Your task to perform on an android device: turn vacation reply on in the gmail app Image 0: 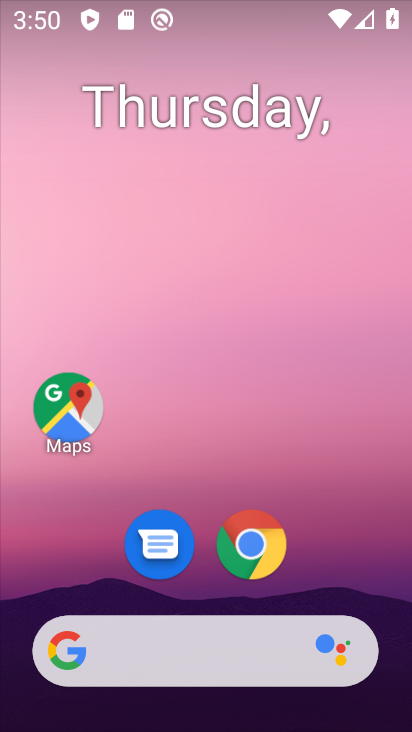
Step 0: drag from (330, 369) to (277, 140)
Your task to perform on an android device: turn vacation reply on in the gmail app Image 1: 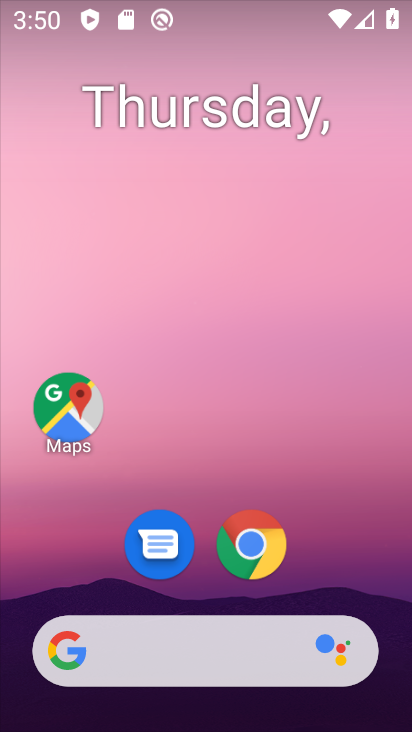
Step 1: drag from (343, 542) to (350, 138)
Your task to perform on an android device: turn vacation reply on in the gmail app Image 2: 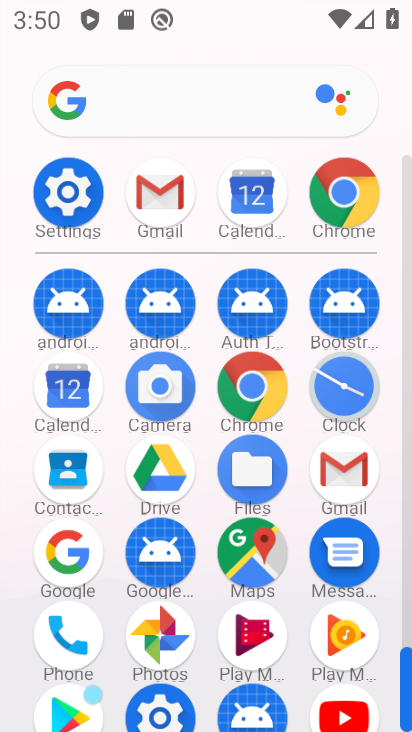
Step 2: click (154, 193)
Your task to perform on an android device: turn vacation reply on in the gmail app Image 3: 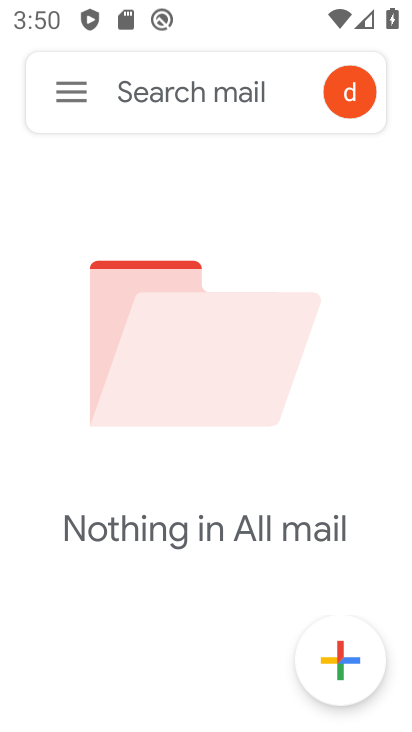
Step 3: click (65, 79)
Your task to perform on an android device: turn vacation reply on in the gmail app Image 4: 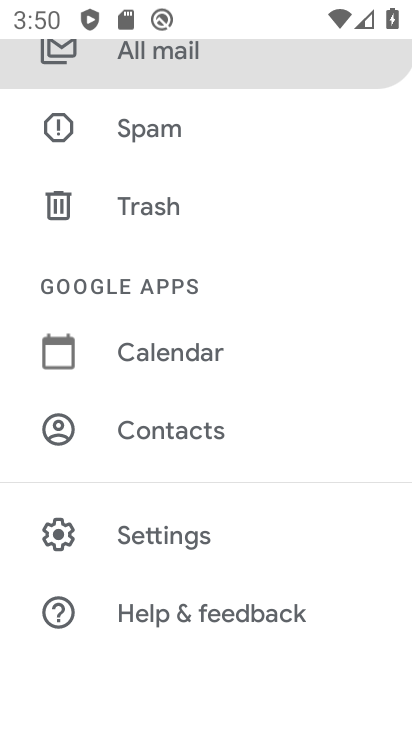
Step 4: drag from (296, 529) to (273, 133)
Your task to perform on an android device: turn vacation reply on in the gmail app Image 5: 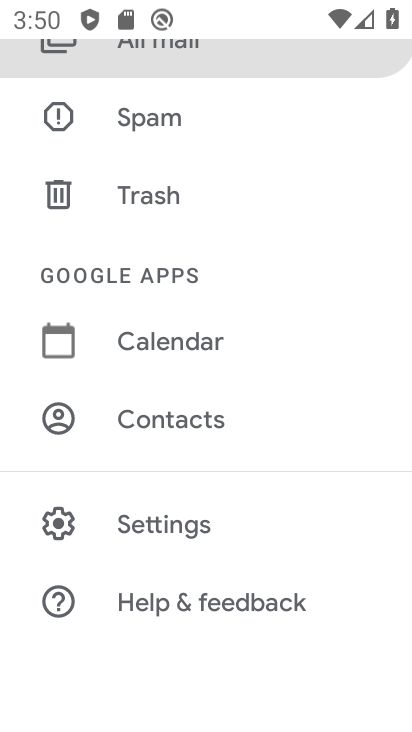
Step 5: click (306, 499)
Your task to perform on an android device: turn vacation reply on in the gmail app Image 6: 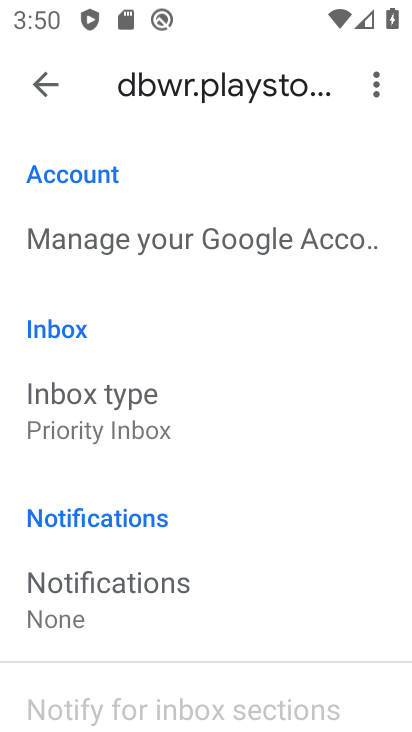
Step 6: drag from (286, 526) to (303, 48)
Your task to perform on an android device: turn vacation reply on in the gmail app Image 7: 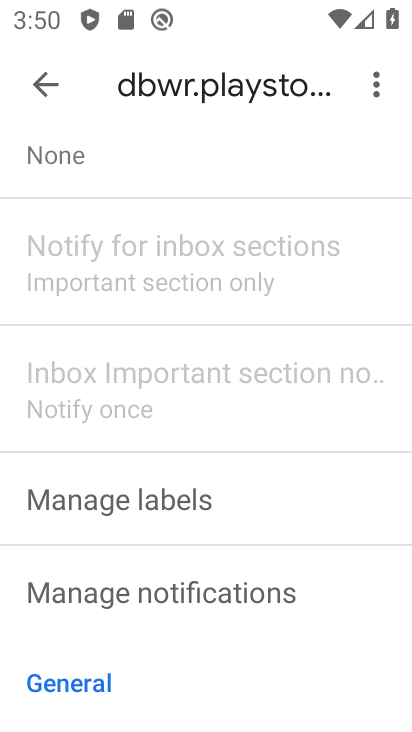
Step 7: drag from (256, 602) to (274, 188)
Your task to perform on an android device: turn vacation reply on in the gmail app Image 8: 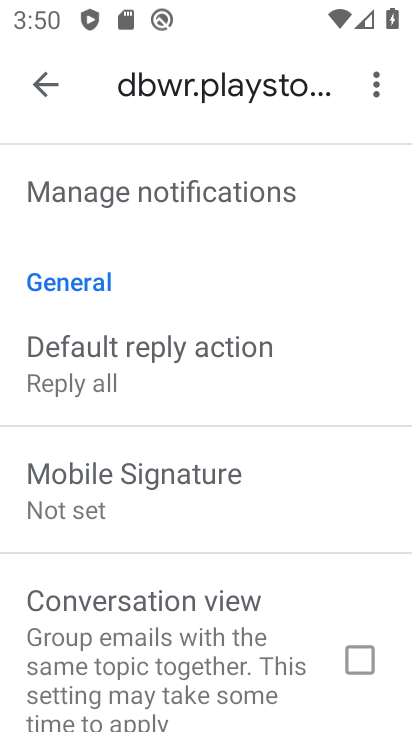
Step 8: drag from (270, 532) to (276, 104)
Your task to perform on an android device: turn vacation reply on in the gmail app Image 9: 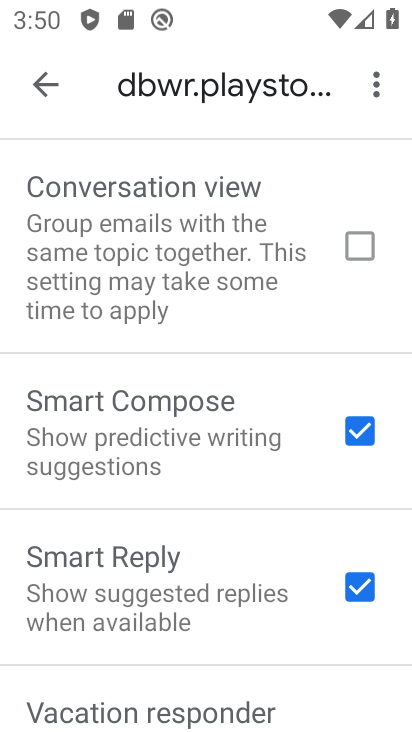
Step 9: drag from (225, 552) to (218, 25)
Your task to perform on an android device: turn vacation reply on in the gmail app Image 10: 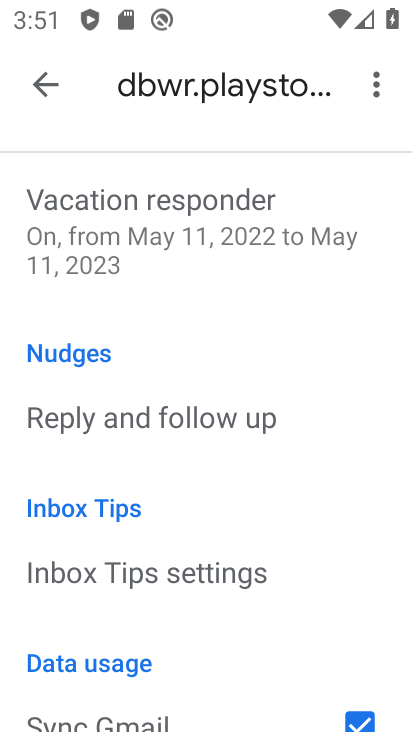
Step 10: click (153, 225)
Your task to perform on an android device: turn vacation reply on in the gmail app Image 11: 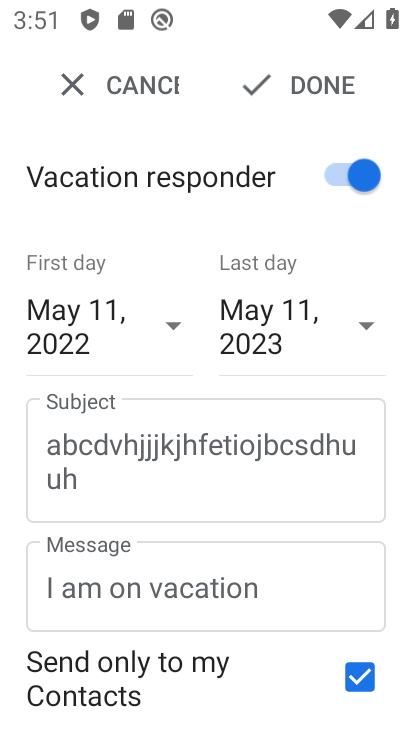
Step 11: click (272, 77)
Your task to perform on an android device: turn vacation reply on in the gmail app Image 12: 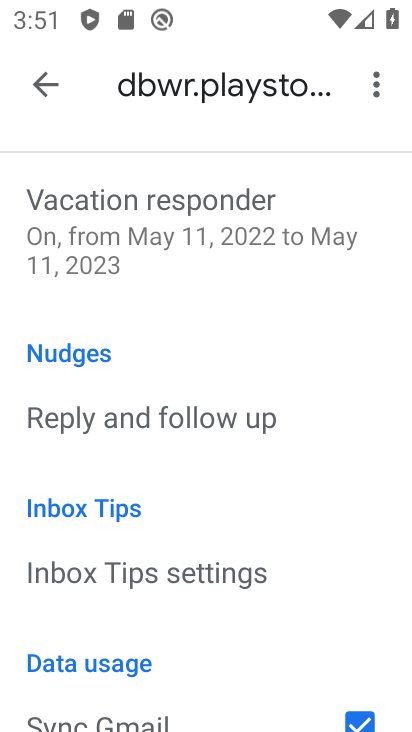
Step 12: task complete